Your task to perform on an android device: Open Yahoo.com Image 0: 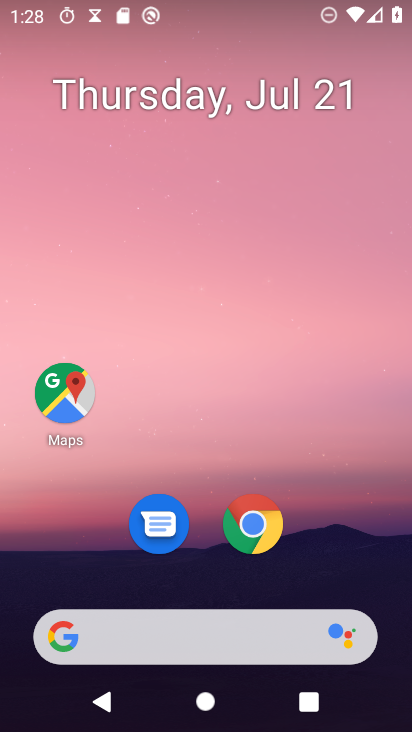
Step 0: click (259, 523)
Your task to perform on an android device: Open Yahoo.com Image 1: 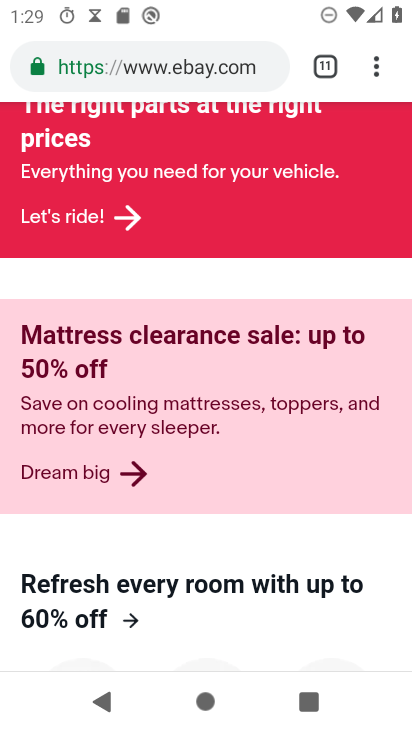
Step 1: drag from (377, 69) to (202, 138)
Your task to perform on an android device: Open Yahoo.com Image 2: 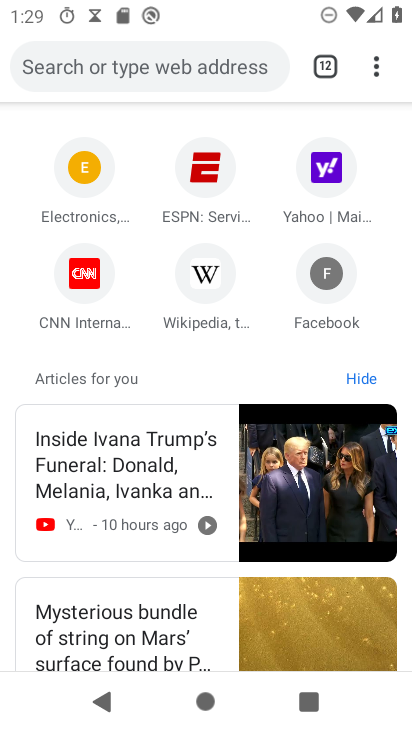
Step 2: click (315, 177)
Your task to perform on an android device: Open Yahoo.com Image 3: 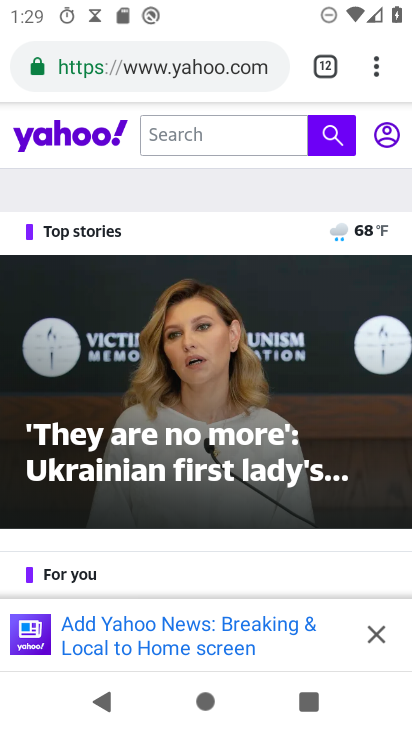
Step 3: task complete